Your task to perform on an android device: turn off smart reply in the gmail app Image 0: 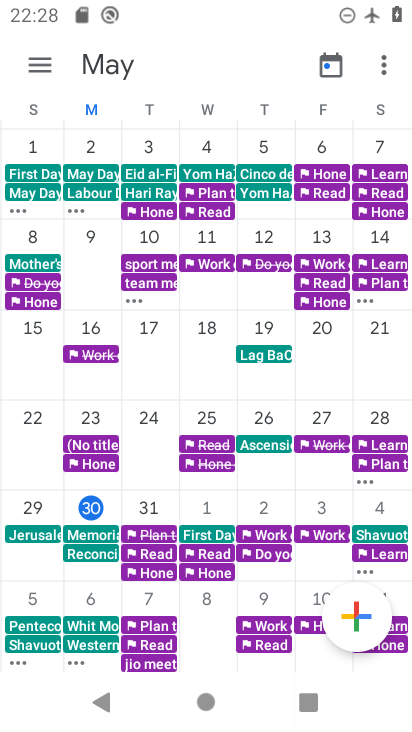
Step 0: click (41, 60)
Your task to perform on an android device: turn off smart reply in the gmail app Image 1: 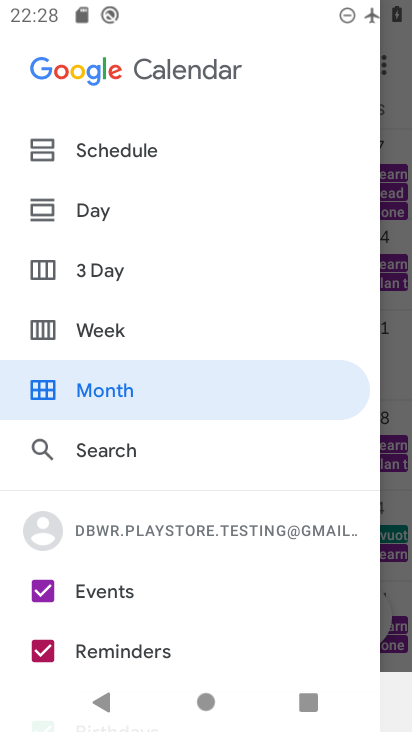
Step 1: drag from (176, 570) to (244, 197)
Your task to perform on an android device: turn off smart reply in the gmail app Image 2: 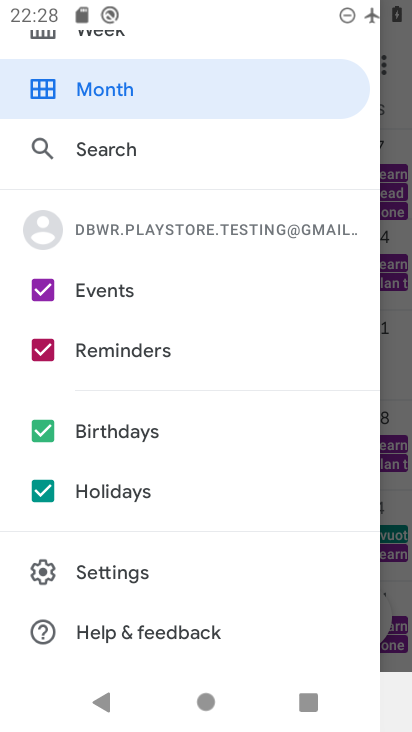
Step 2: click (166, 570)
Your task to perform on an android device: turn off smart reply in the gmail app Image 3: 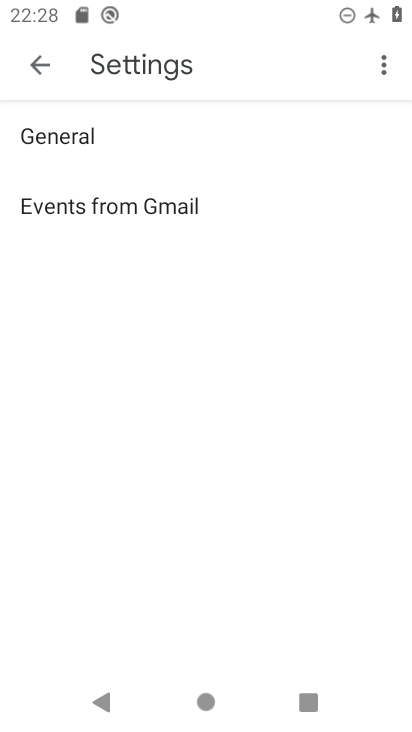
Step 3: press home button
Your task to perform on an android device: turn off smart reply in the gmail app Image 4: 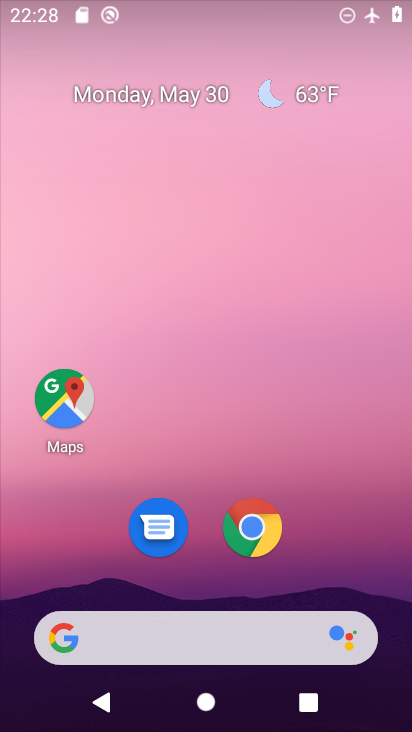
Step 4: drag from (200, 578) to (223, 315)
Your task to perform on an android device: turn off smart reply in the gmail app Image 5: 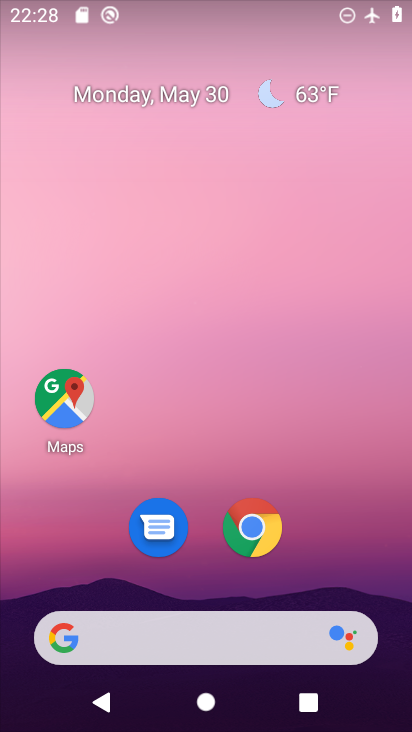
Step 5: drag from (210, 610) to (224, 229)
Your task to perform on an android device: turn off smart reply in the gmail app Image 6: 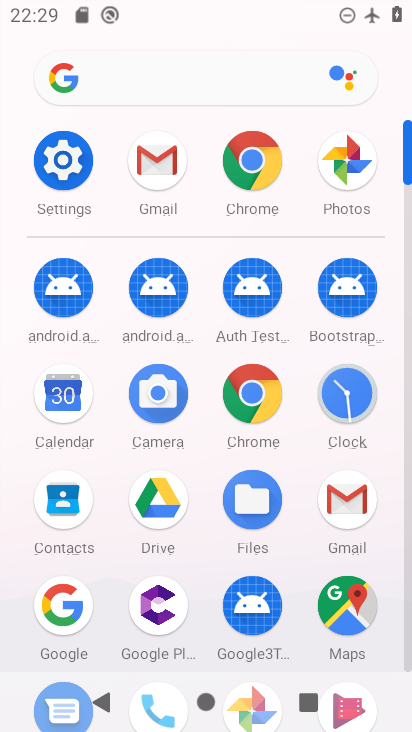
Step 6: click (339, 494)
Your task to perform on an android device: turn off smart reply in the gmail app Image 7: 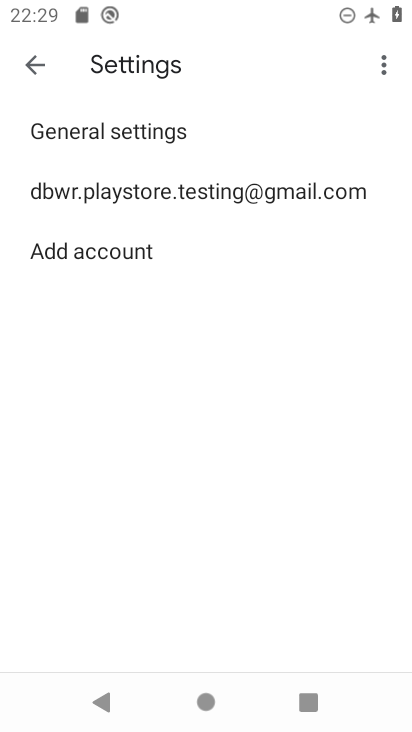
Step 7: click (146, 195)
Your task to perform on an android device: turn off smart reply in the gmail app Image 8: 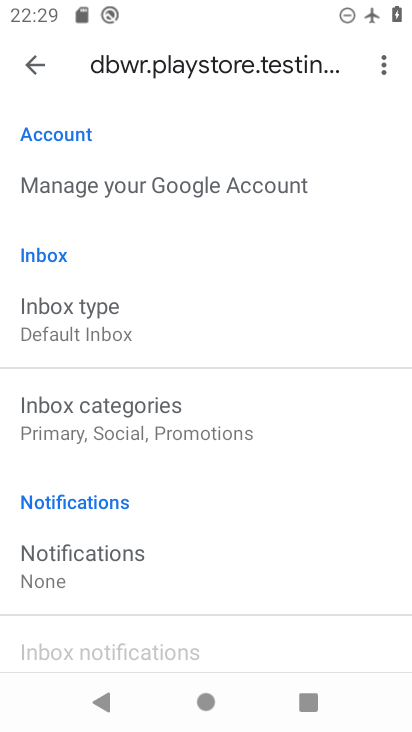
Step 8: drag from (164, 587) to (277, 247)
Your task to perform on an android device: turn off smart reply in the gmail app Image 9: 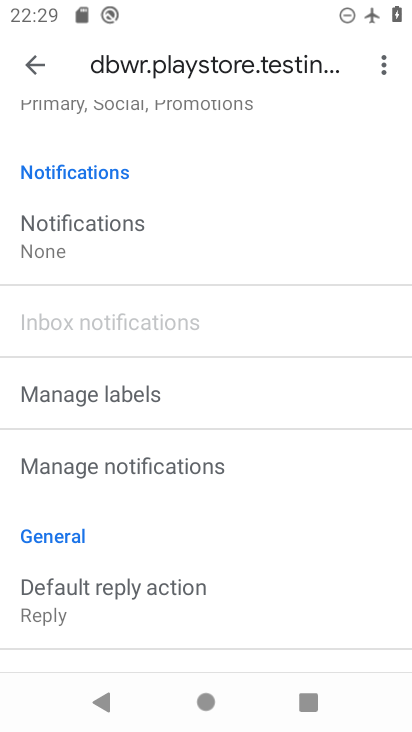
Step 9: drag from (187, 547) to (237, 270)
Your task to perform on an android device: turn off smart reply in the gmail app Image 10: 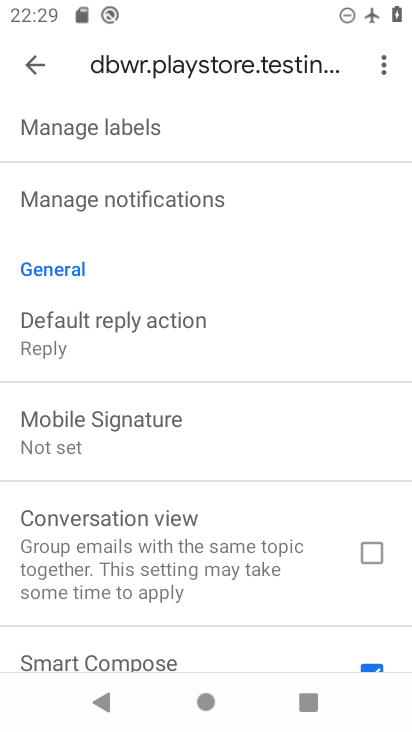
Step 10: drag from (173, 542) to (281, 224)
Your task to perform on an android device: turn off smart reply in the gmail app Image 11: 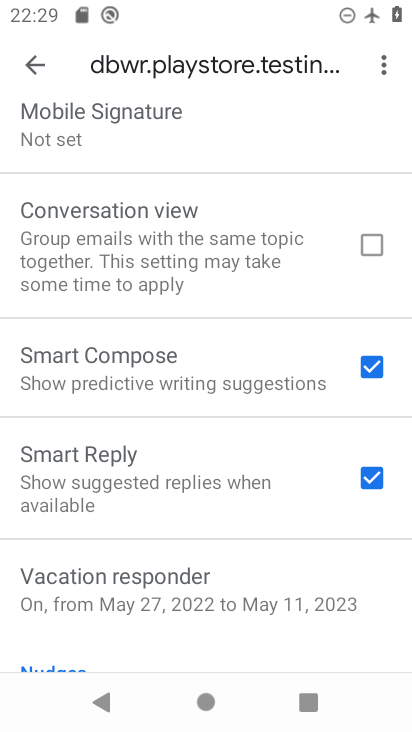
Step 11: click (372, 478)
Your task to perform on an android device: turn off smart reply in the gmail app Image 12: 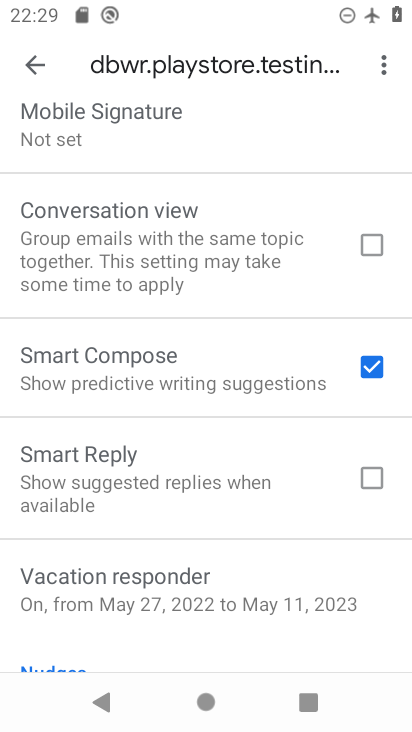
Step 12: task complete